Your task to perform on an android device: Open Google Chrome Image 0: 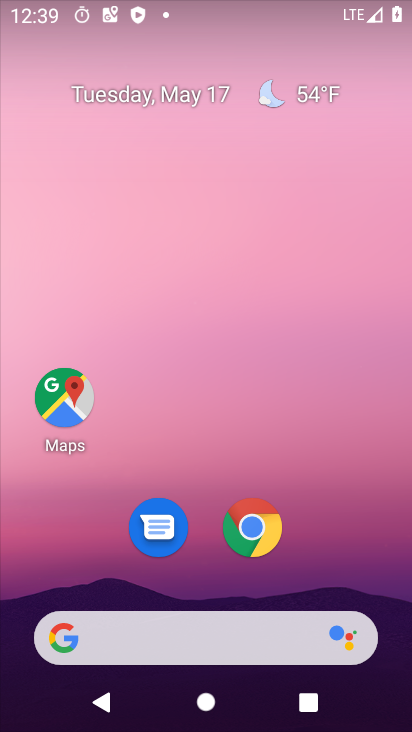
Step 0: press home button
Your task to perform on an android device: Open Google Chrome Image 1: 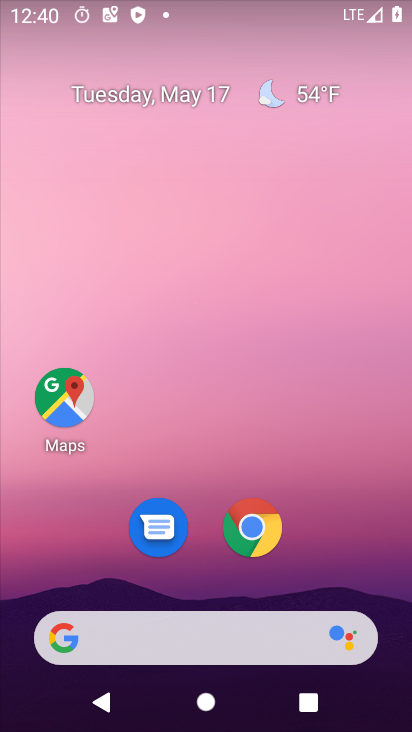
Step 1: drag from (234, 660) to (226, 310)
Your task to perform on an android device: Open Google Chrome Image 2: 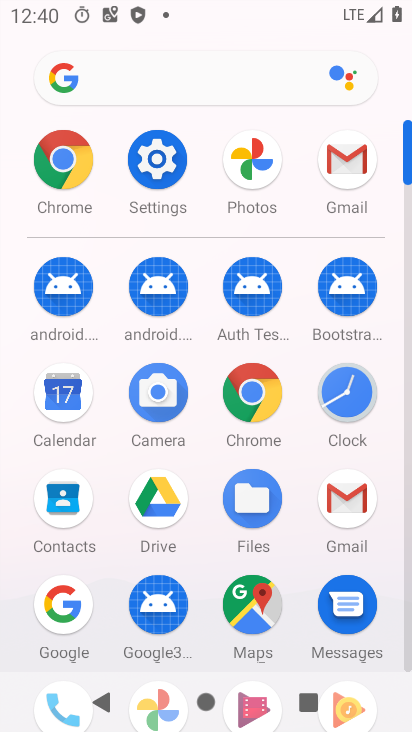
Step 2: click (79, 179)
Your task to perform on an android device: Open Google Chrome Image 3: 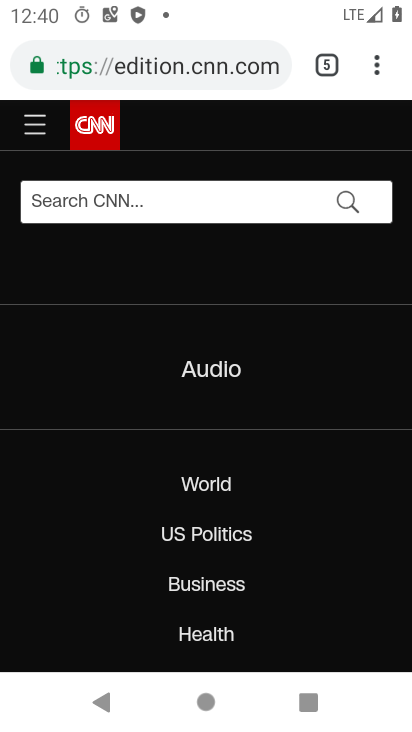
Step 3: click (312, 76)
Your task to perform on an android device: Open Google Chrome Image 4: 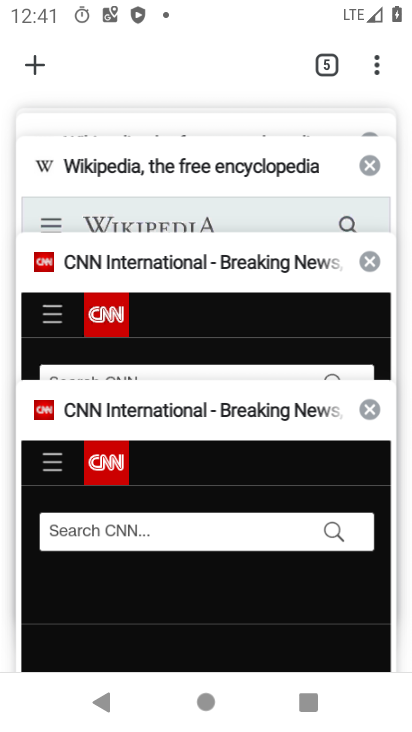
Step 4: click (38, 71)
Your task to perform on an android device: Open Google Chrome Image 5: 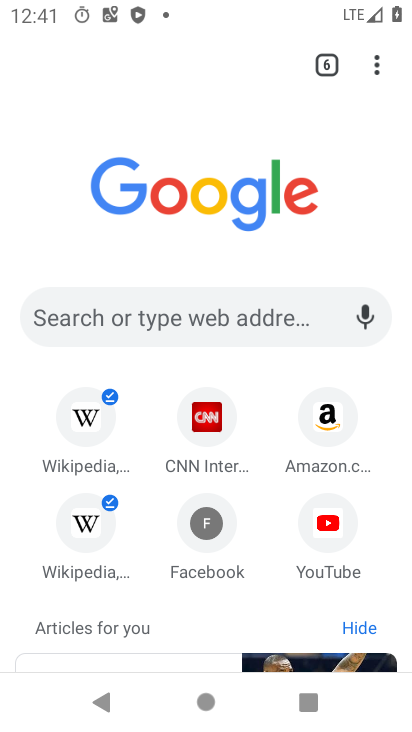
Step 5: task complete